Your task to perform on an android device: delete location history Image 0: 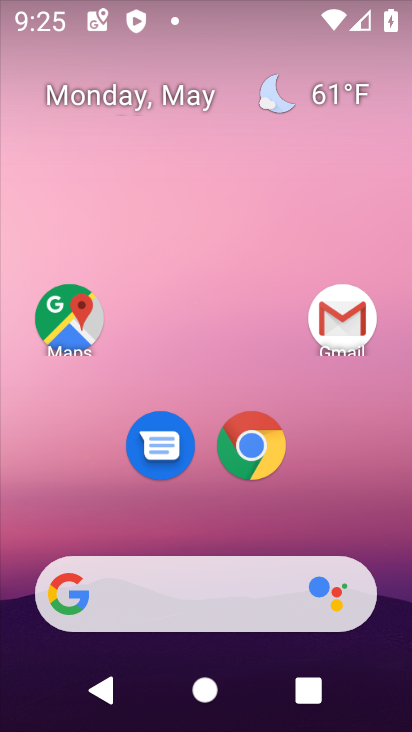
Step 0: drag from (360, 525) to (392, 181)
Your task to perform on an android device: delete location history Image 1: 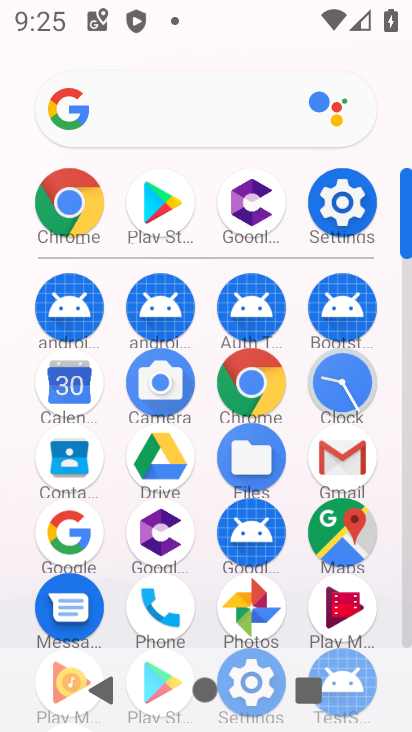
Step 1: click (347, 535)
Your task to perform on an android device: delete location history Image 2: 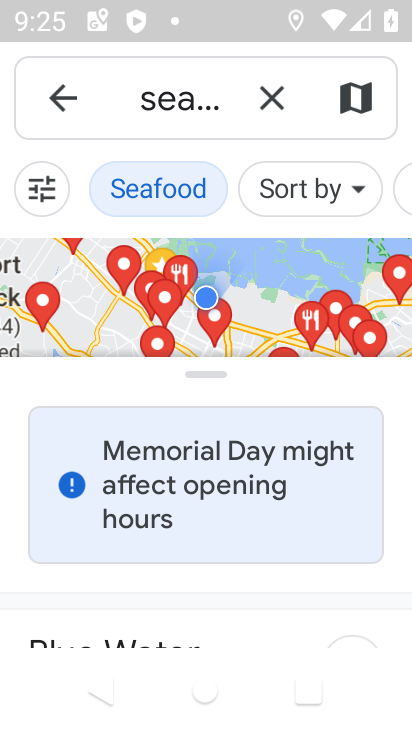
Step 2: press back button
Your task to perform on an android device: delete location history Image 3: 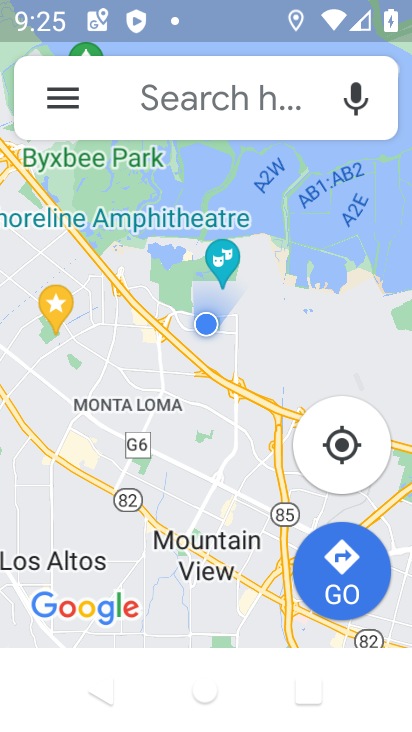
Step 3: click (67, 106)
Your task to perform on an android device: delete location history Image 4: 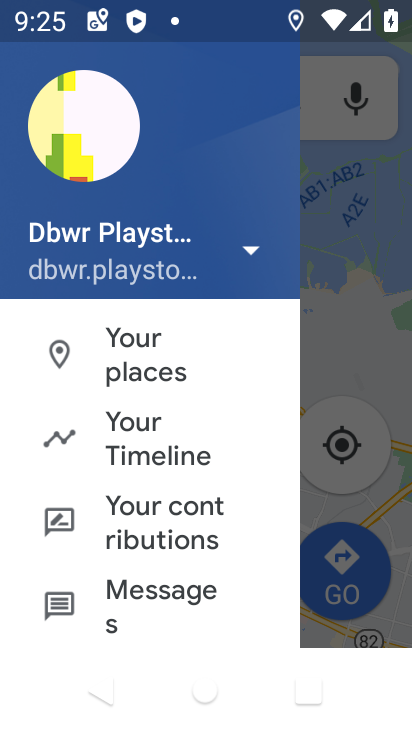
Step 4: click (157, 443)
Your task to perform on an android device: delete location history Image 5: 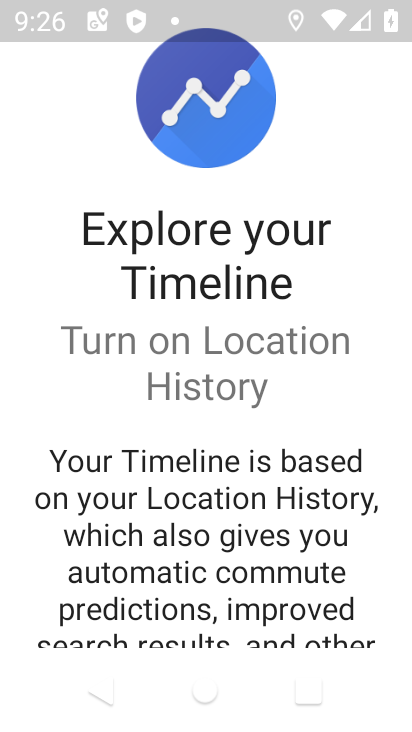
Step 5: drag from (360, 572) to (360, 430)
Your task to perform on an android device: delete location history Image 6: 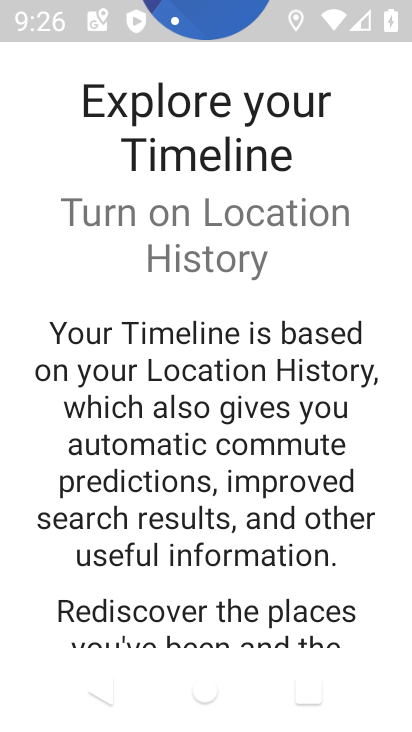
Step 6: drag from (367, 569) to (372, 397)
Your task to perform on an android device: delete location history Image 7: 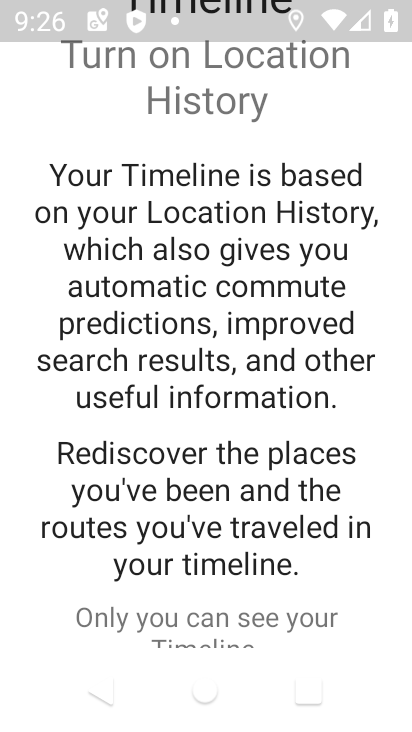
Step 7: drag from (379, 573) to (384, 377)
Your task to perform on an android device: delete location history Image 8: 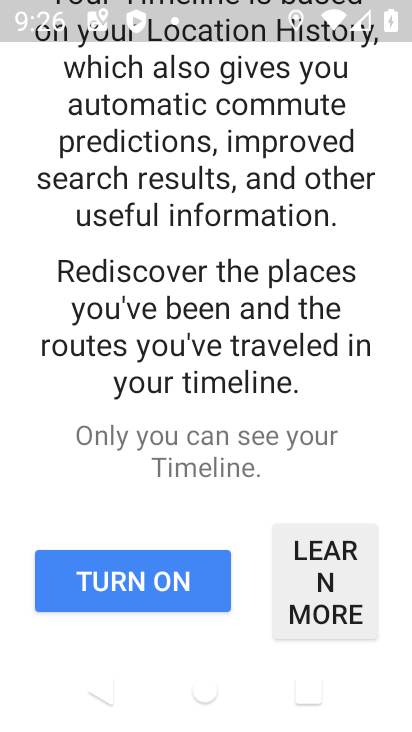
Step 8: drag from (379, 590) to (373, 387)
Your task to perform on an android device: delete location history Image 9: 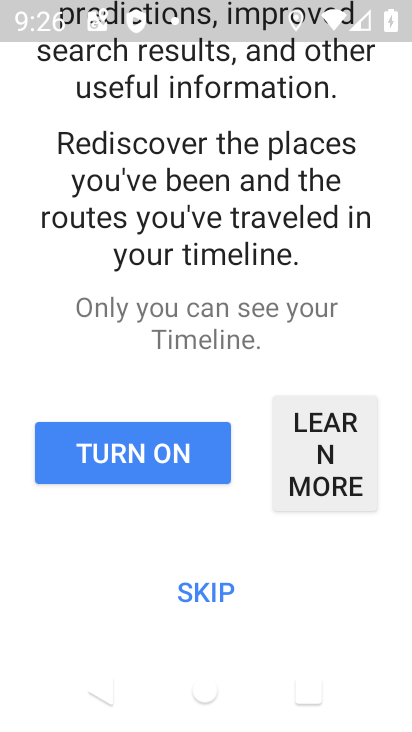
Step 9: click (231, 594)
Your task to perform on an android device: delete location history Image 10: 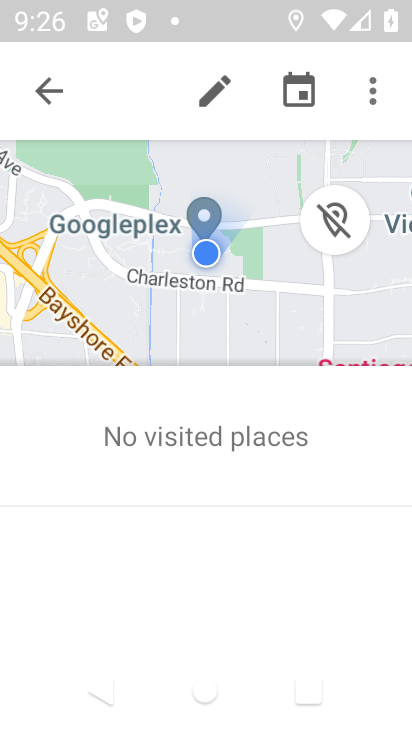
Step 10: click (368, 103)
Your task to perform on an android device: delete location history Image 11: 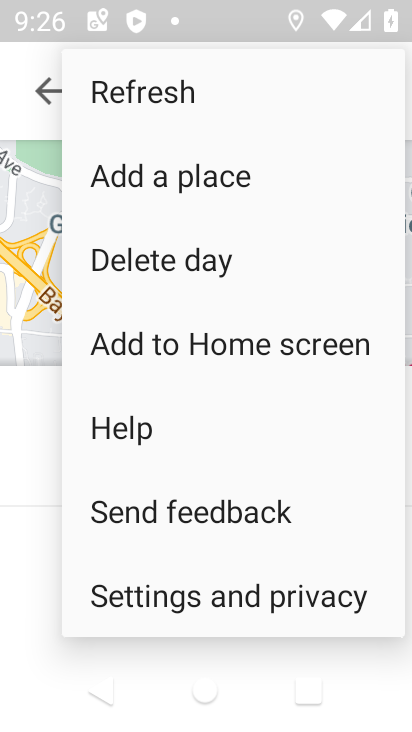
Step 11: click (245, 595)
Your task to perform on an android device: delete location history Image 12: 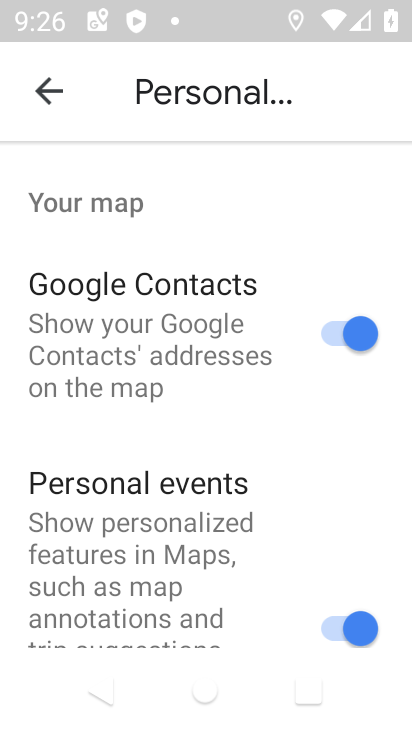
Step 12: drag from (247, 592) to (300, 384)
Your task to perform on an android device: delete location history Image 13: 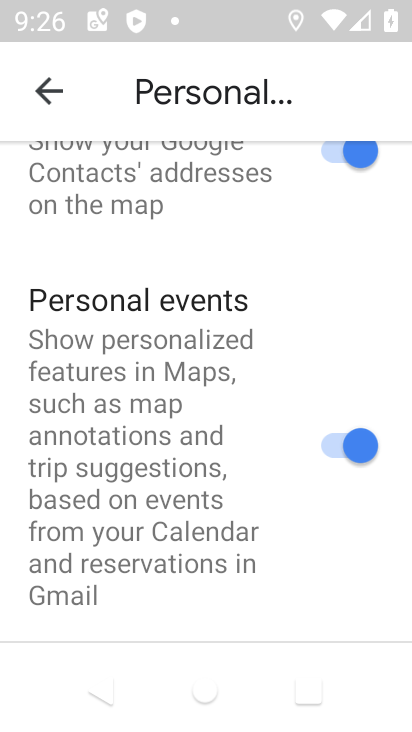
Step 13: drag from (294, 541) to (296, 312)
Your task to perform on an android device: delete location history Image 14: 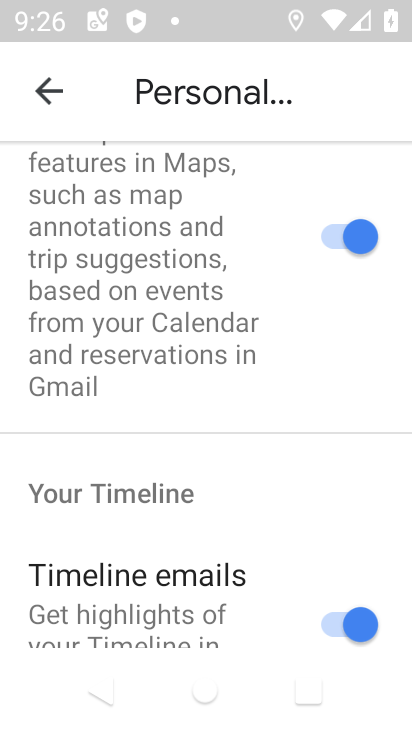
Step 14: drag from (279, 573) to (297, 406)
Your task to perform on an android device: delete location history Image 15: 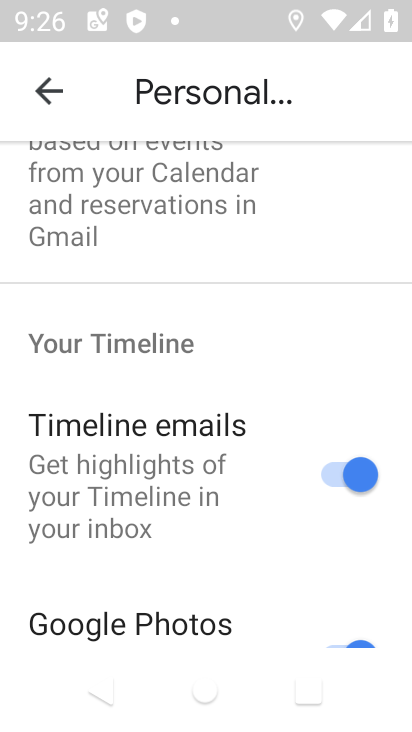
Step 15: drag from (290, 572) to (283, 418)
Your task to perform on an android device: delete location history Image 16: 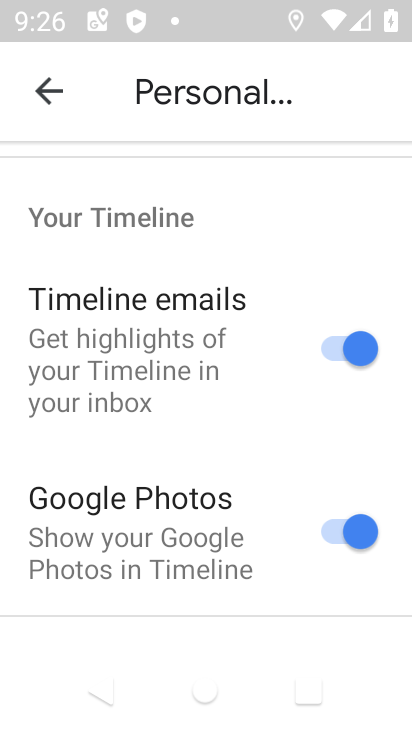
Step 16: drag from (272, 511) to (286, 295)
Your task to perform on an android device: delete location history Image 17: 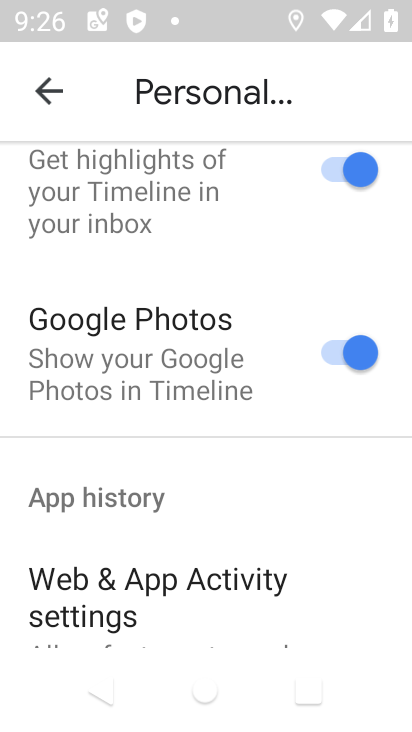
Step 17: drag from (295, 512) to (302, 394)
Your task to perform on an android device: delete location history Image 18: 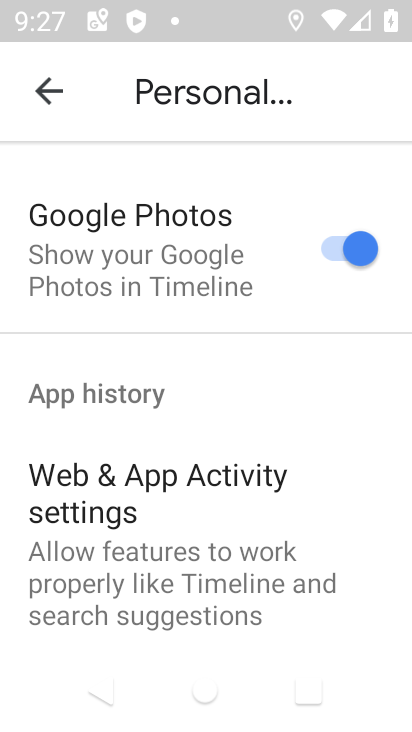
Step 18: drag from (303, 575) to (307, 406)
Your task to perform on an android device: delete location history Image 19: 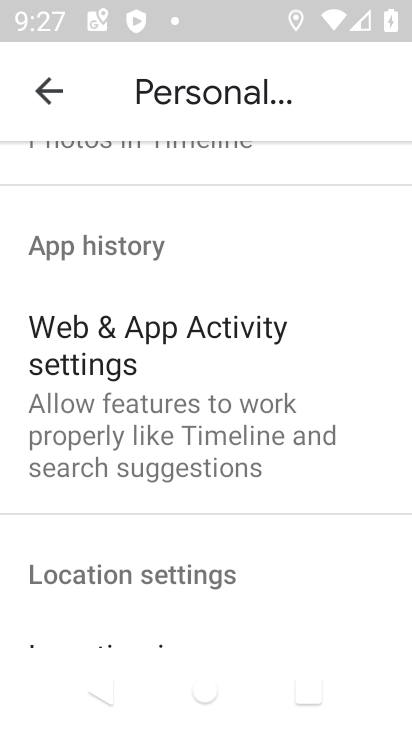
Step 19: drag from (312, 572) to (321, 424)
Your task to perform on an android device: delete location history Image 20: 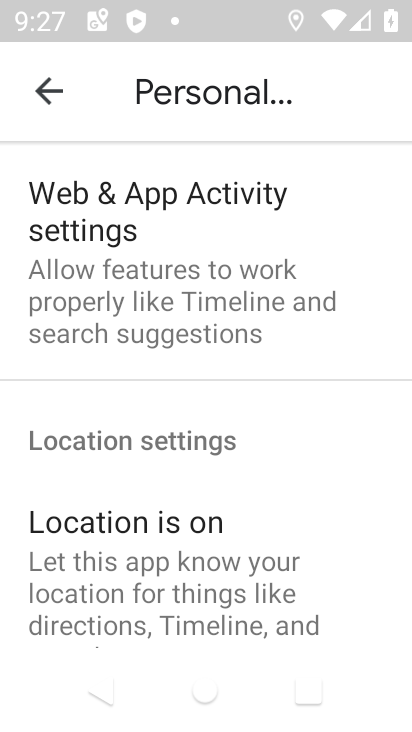
Step 20: drag from (344, 601) to (342, 453)
Your task to perform on an android device: delete location history Image 21: 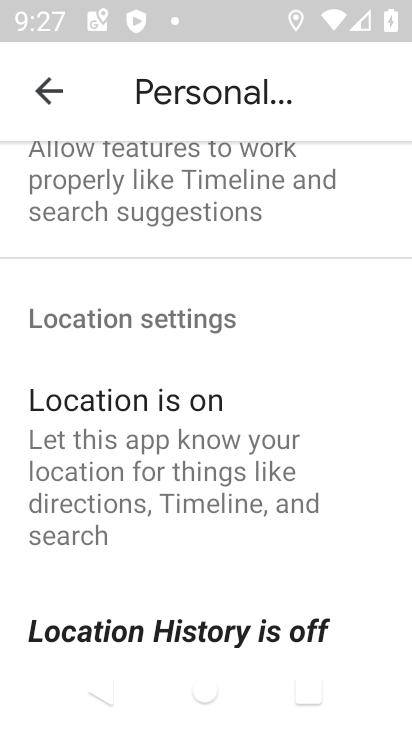
Step 21: drag from (340, 573) to (360, 412)
Your task to perform on an android device: delete location history Image 22: 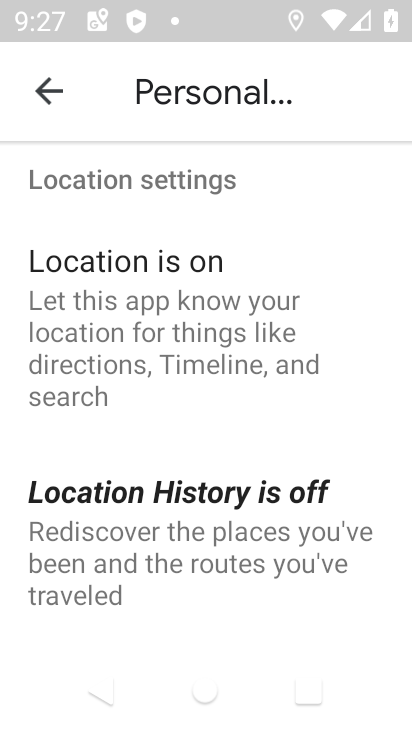
Step 22: drag from (368, 567) to (375, 331)
Your task to perform on an android device: delete location history Image 23: 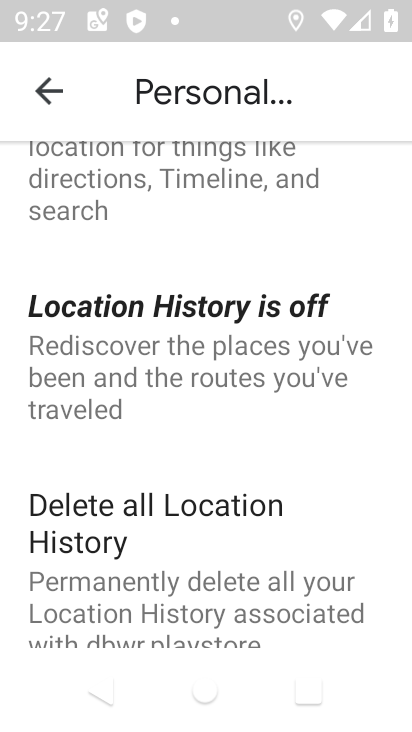
Step 23: drag from (344, 512) to (342, 364)
Your task to perform on an android device: delete location history Image 24: 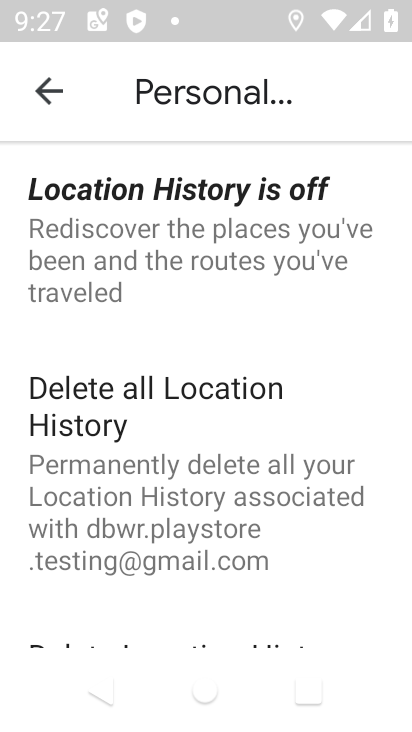
Step 24: click (204, 438)
Your task to perform on an android device: delete location history Image 25: 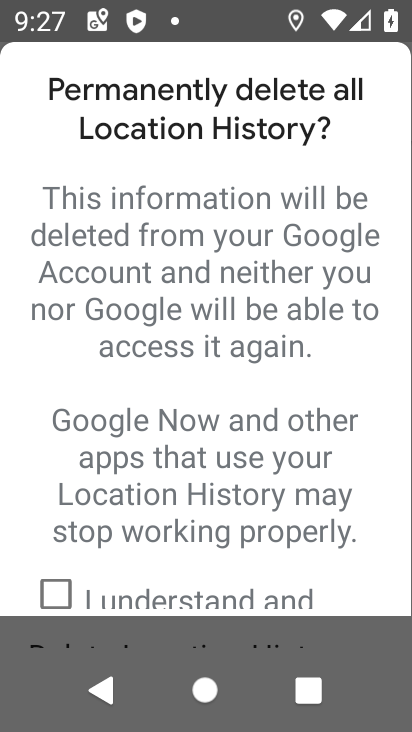
Step 25: drag from (216, 511) to (228, 334)
Your task to perform on an android device: delete location history Image 26: 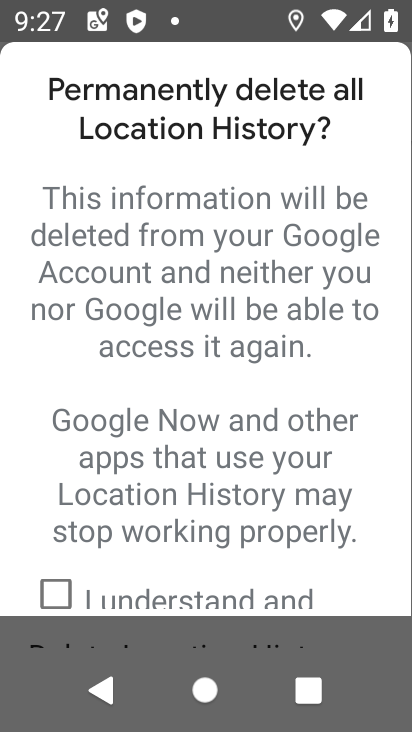
Step 26: click (51, 595)
Your task to perform on an android device: delete location history Image 27: 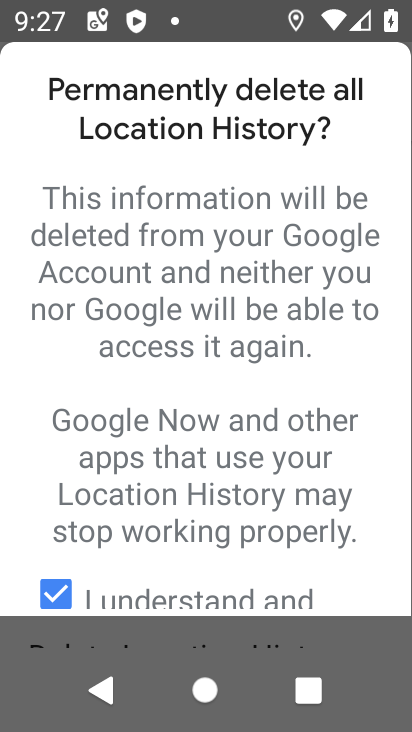
Step 27: drag from (291, 537) to (305, 324)
Your task to perform on an android device: delete location history Image 28: 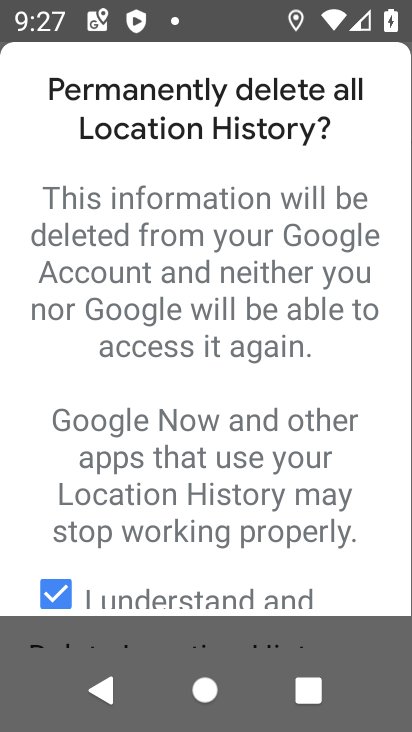
Step 28: click (365, 610)
Your task to perform on an android device: delete location history Image 29: 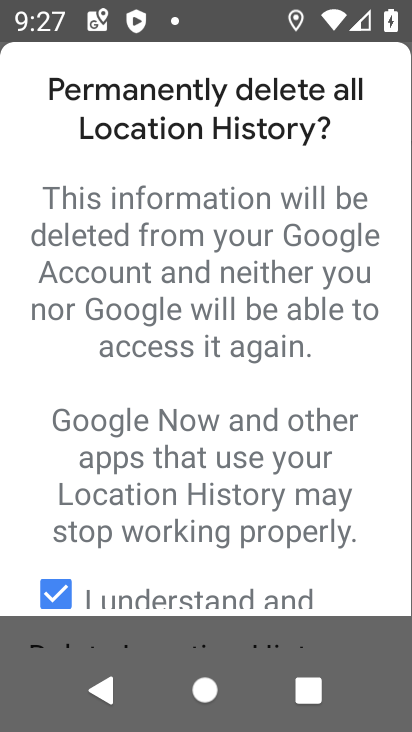
Step 29: drag from (363, 532) to (348, 301)
Your task to perform on an android device: delete location history Image 30: 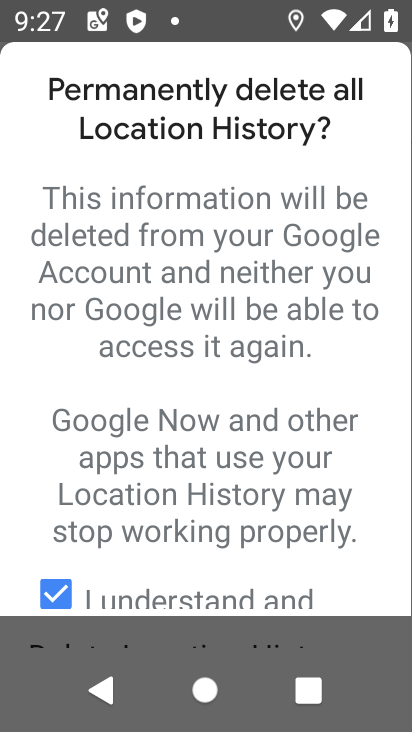
Step 30: drag from (284, 545) to (276, 729)
Your task to perform on an android device: delete location history Image 31: 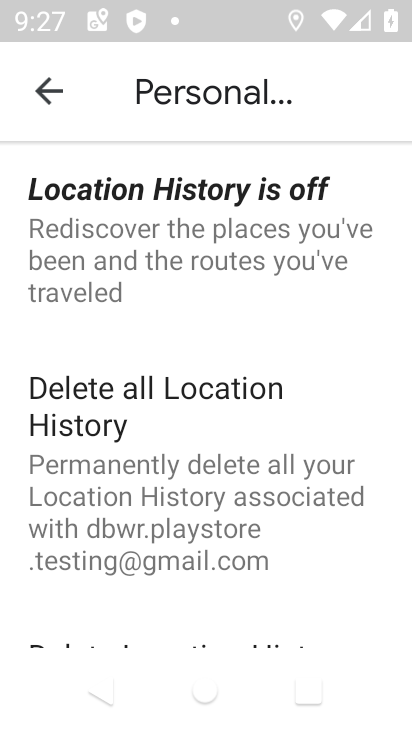
Step 31: drag from (241, 467) to (240, 576)
Your task to perform on an android device: delete location history Image 32: 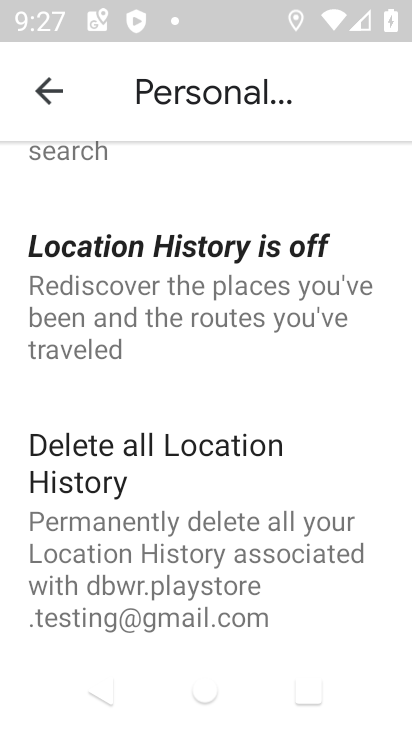
Step 32: drag from (242, 574) to (273, 182)
Your task to perform on an android device: delete location history Image 33: 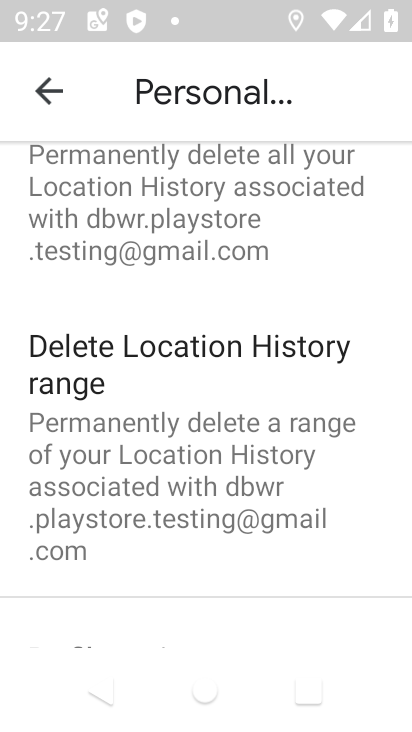
Step 33: click (206, 193)
Your task to perform on an android device: delete location history Image 34: 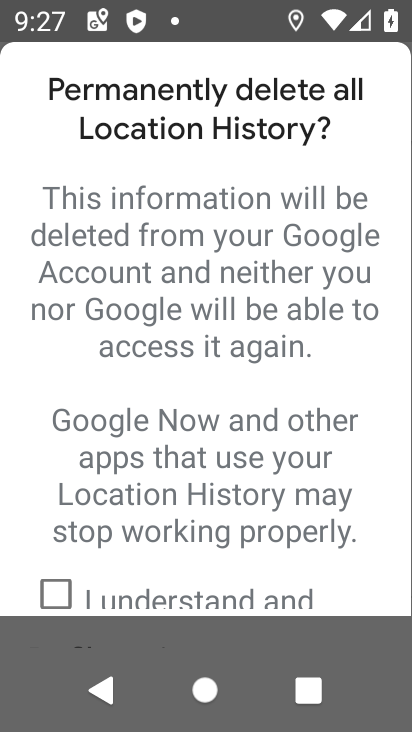
Step 34: click (40, 589)
Your task to perform on an android device: delete location history Image 35: 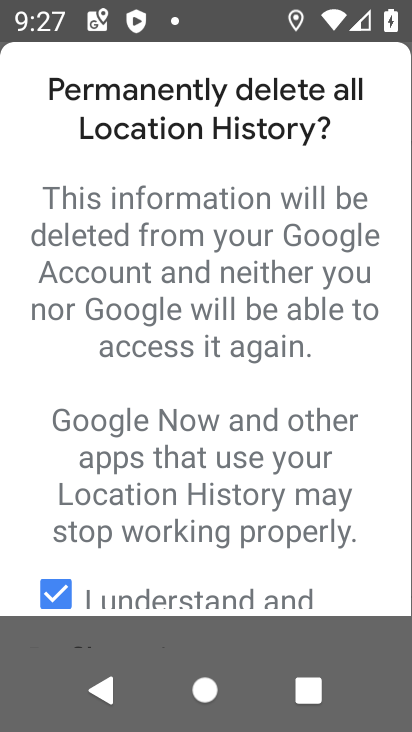
Step 35: task complete